Your task to perform on an android device: What is the news today? Image 0: 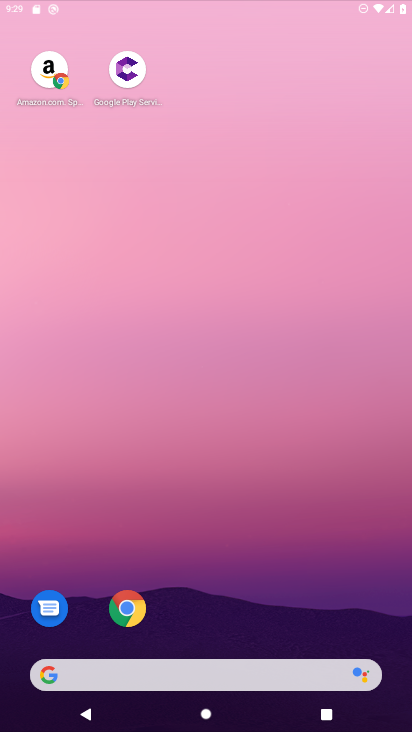
Step 0: drag from (253, 622) to (411, 6)
Your task to perform on an android device: What is the news today? Image 1: 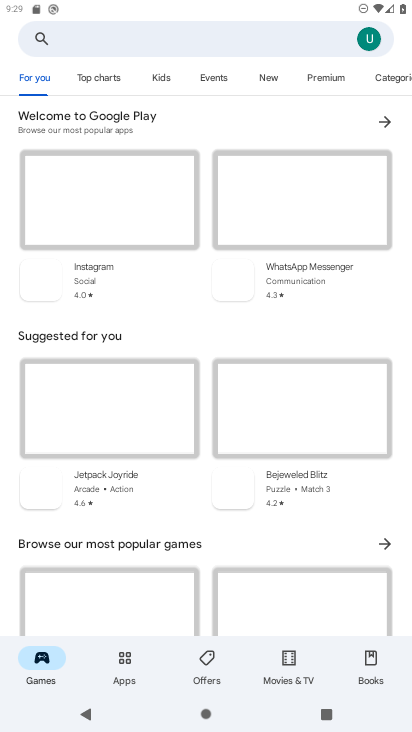
Step 1: drag from (259, 665) to (287, 203)
Your task to perform on an android device: What is the news today? Image 2: 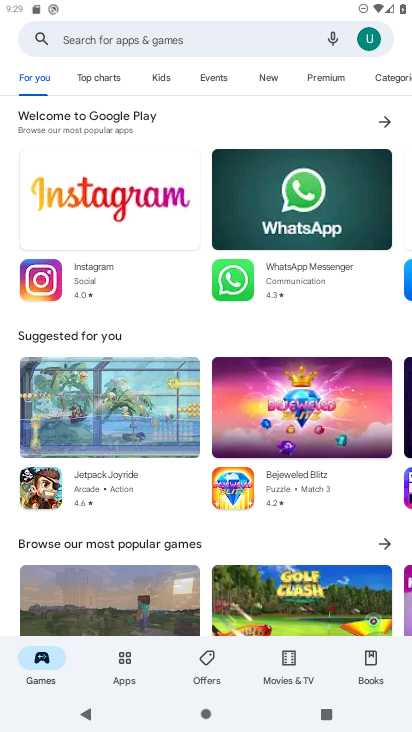
Step 2: press home button
Your task to perform on an android device: What is the news today? Image 3: 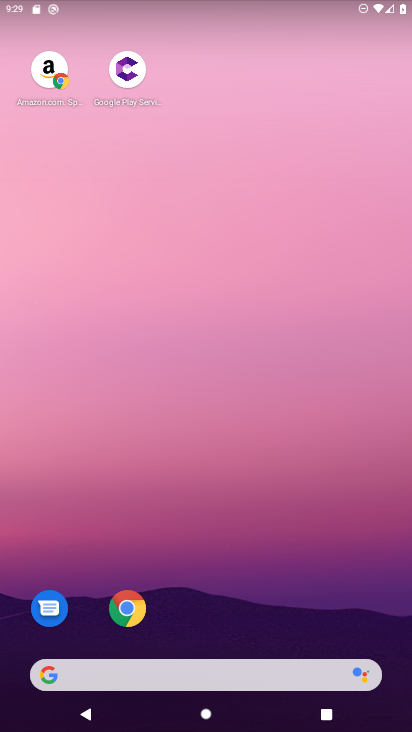
Step 3: drag from (211, 671) to (167, 142)
Your task to perform on an android device: What is the news today? Image 4: 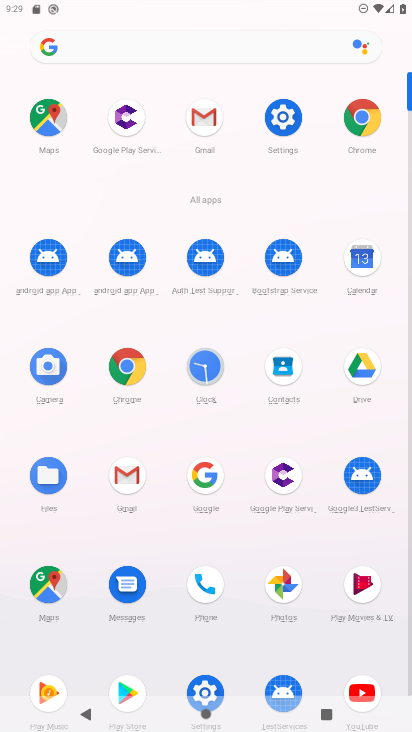
Step 4: click (127, 367)
Your task to perform on an android device: What is the news today? Image 5: 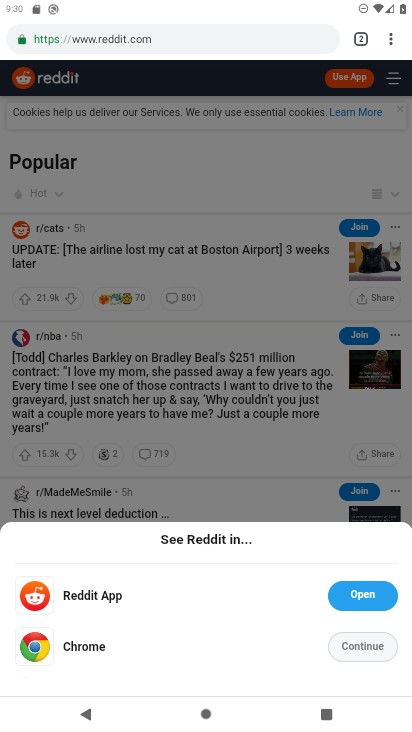
Step 5: click (177, 51)
Your task to perform on an android device: What is the news today? Image 6: 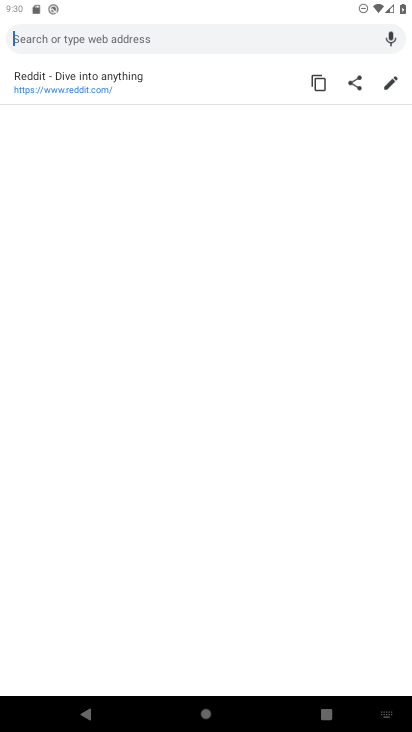
Step 6: type "news today"
Your task to perform on an android device: What is the news today? Image 7: 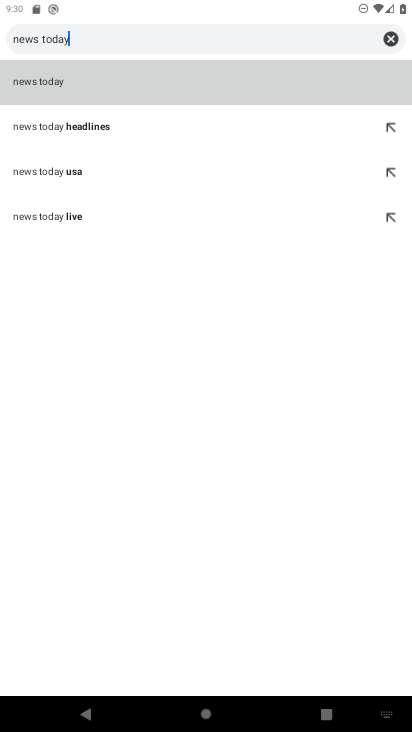
Step 7: click (96, 95)
Your task to perform on an android device: What is the news today? Image 8: 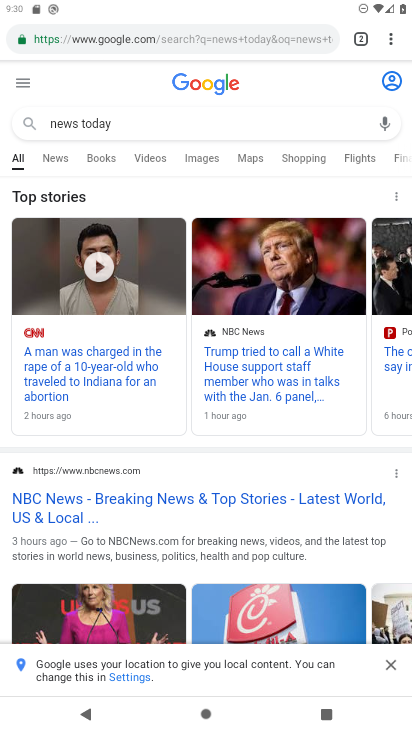
Step 8: task complete